Your task to perform on an android device: move an email to a new category in the gmail app Image 0: 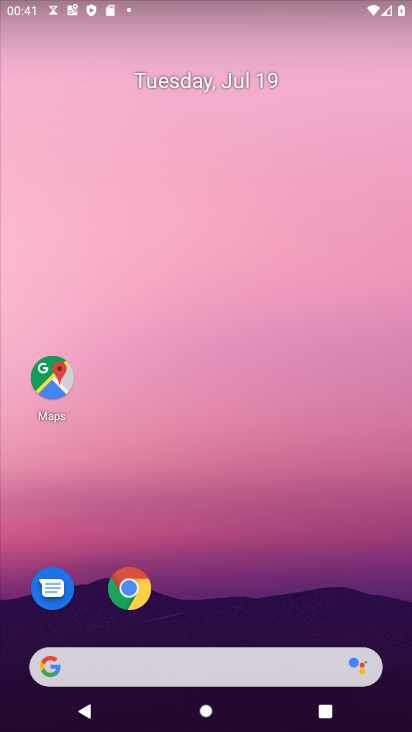
Step 0: drag from (258, 676) to (251, 178)
Your task to perform on an android device: move an email to a new category in the gmail app Image 1: 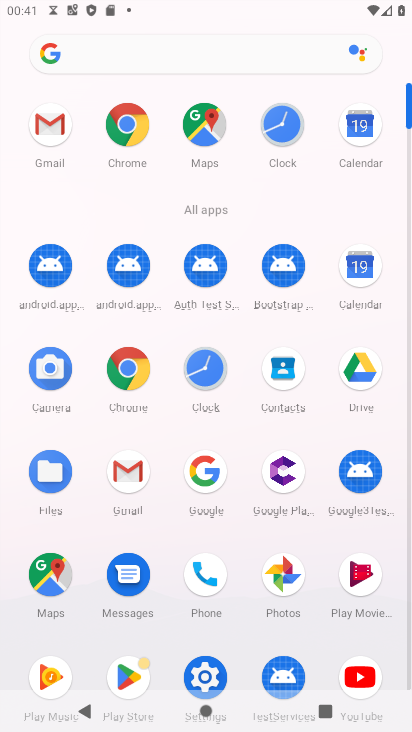
Step 1: click (121, 477)
Your task to perform on an android device: move an email to a new category in the gmail app Image 2: 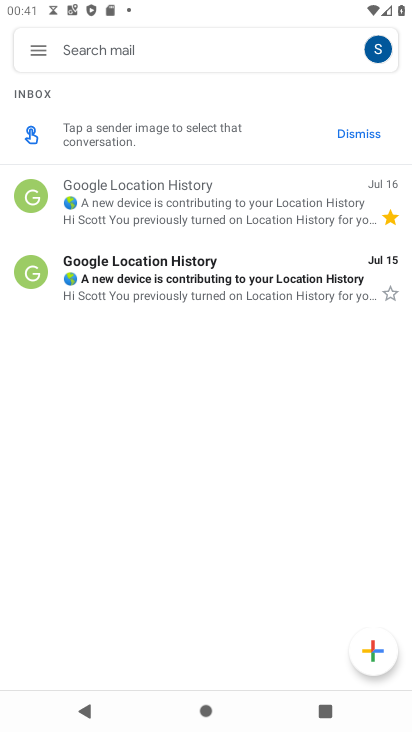
Step 2: click (38, 48)
Your task to perform on an android device: move an email to a new category in the gmail app Image 3: 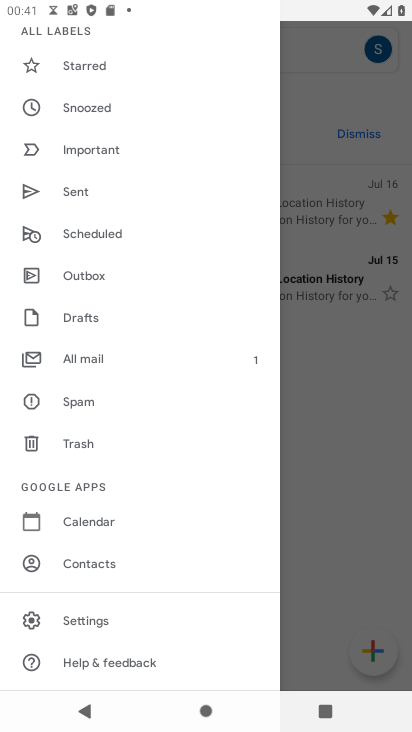
Step 3: click (98, 622)
Your task to perform on an android device: move an email to a new category in the gmail app Image 4: 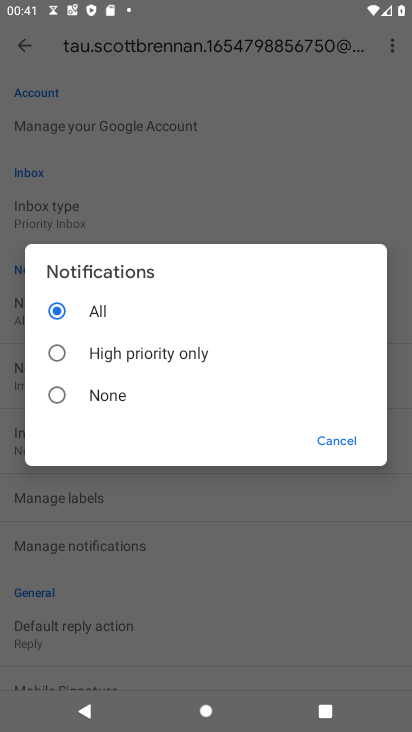
Step 4: click (312, 443)
Your task to perform on an android device: move an email to a new category in the gmail app Image 5: 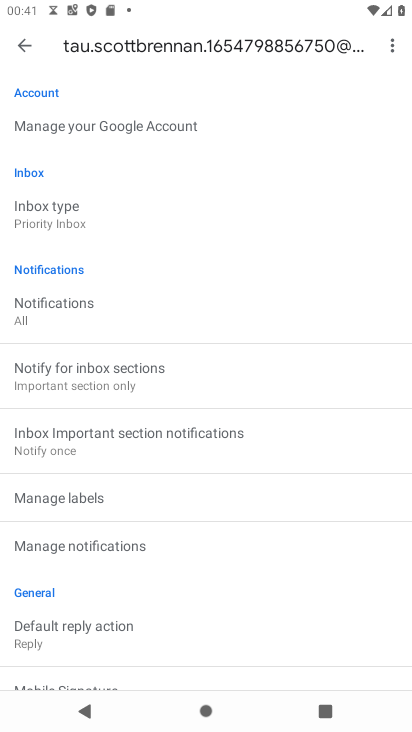
Step 5: click (66, 208)
Your task to perform on an android device: move an email to a new category in the gmail app Image 6: 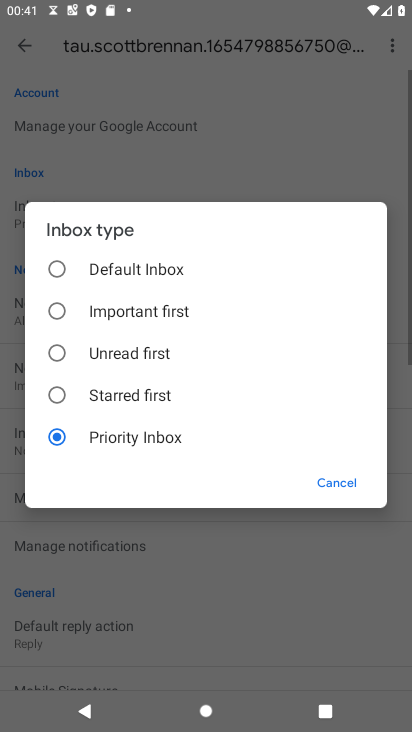
Step 6: click (84, 264)
Your task to perform on an android device: move an email to a new category in the gmail app Image 7: 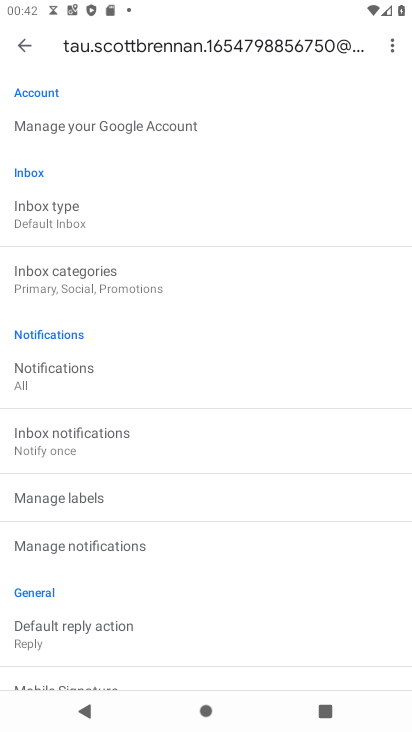
Step 7: click (71, 275)
Your task to perform on an android device: move an email to a new category in the gmail app Image 8: 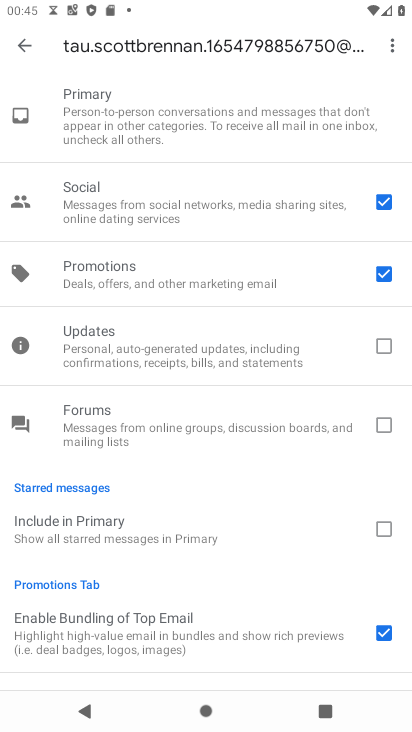
Step 8: task complete